Your task to perform on an android device: turn on data saver in the chrome app Image 0: 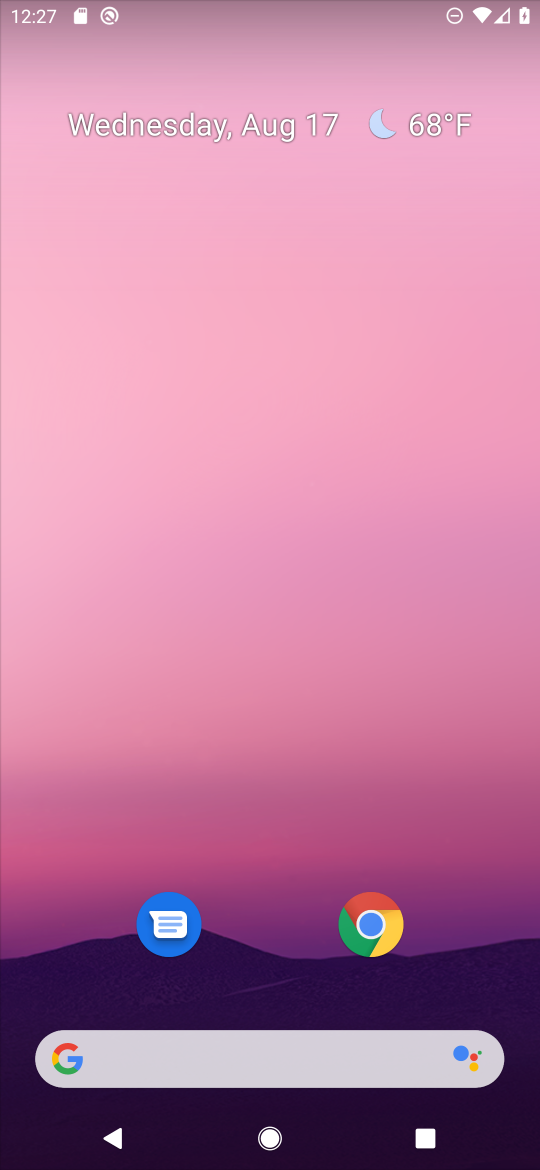
Step 0: click (359, 931)
Your task to perform on an android device: turn on data saver in the chrome app Image 1: 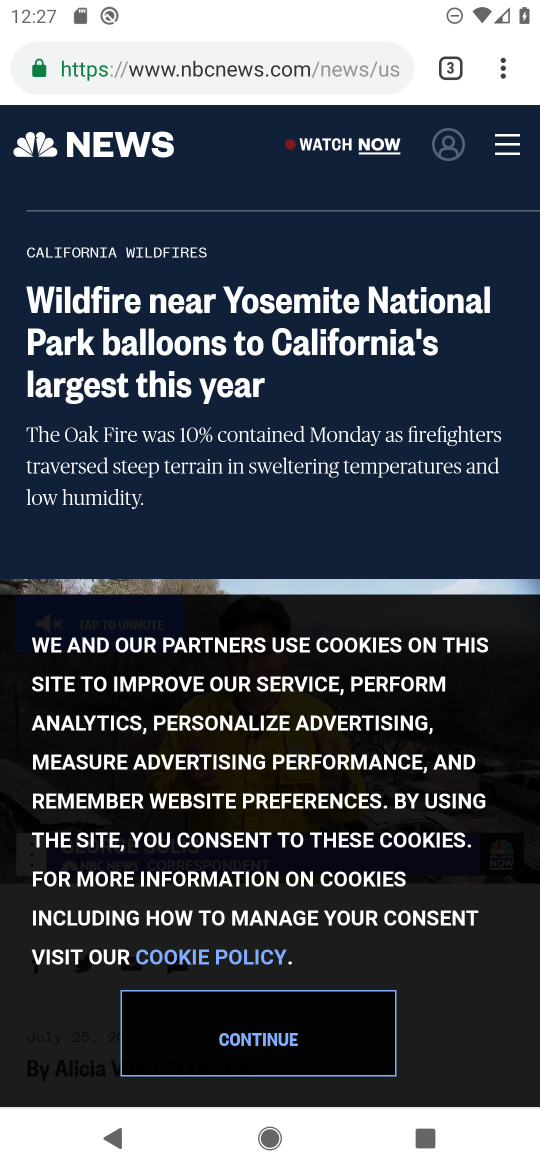
Step 1: click (512, 62)
Your task to perform on an android device: turn on data saver in the chrome app Image 2: 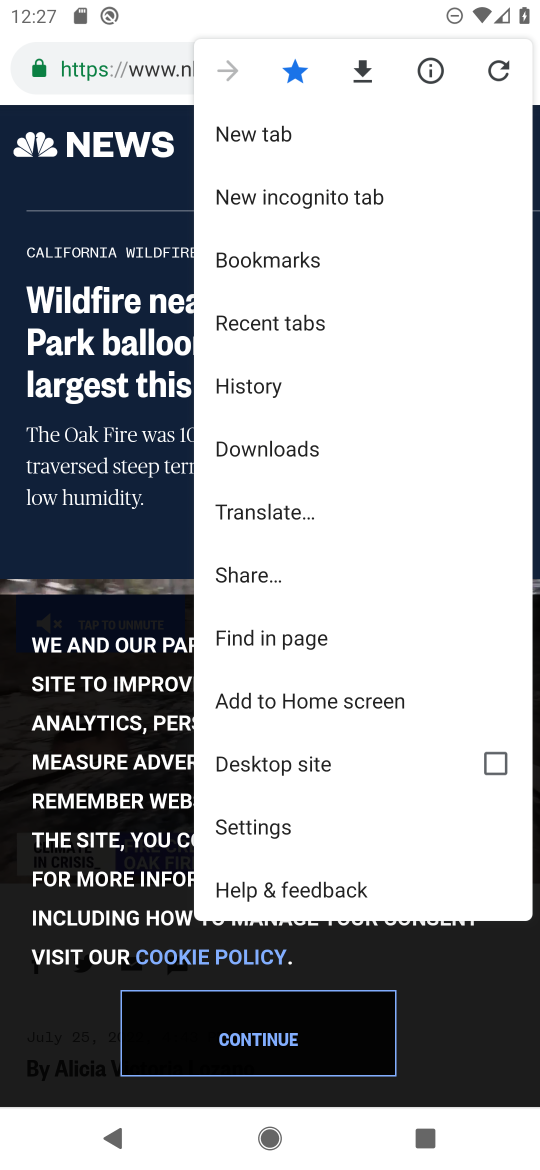
Step 2: click (309, 838)
Your task to perform on an android device: turn on data saver in the chrome app Image 3: 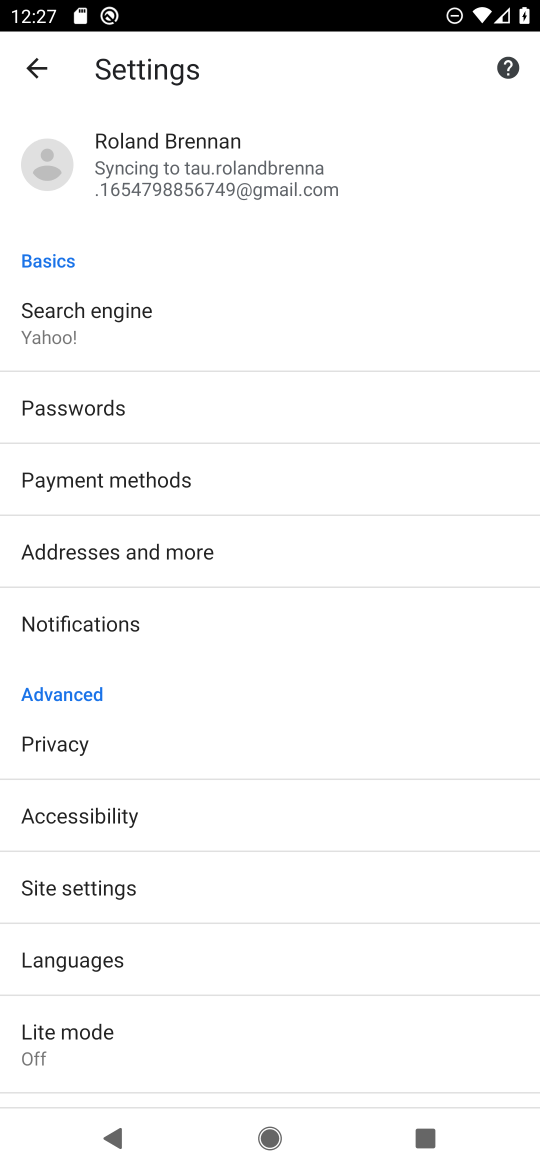
Step 3: click (136, 1040)
Your task to perform on an android device: turn on data saver in the chrome app Image 4: 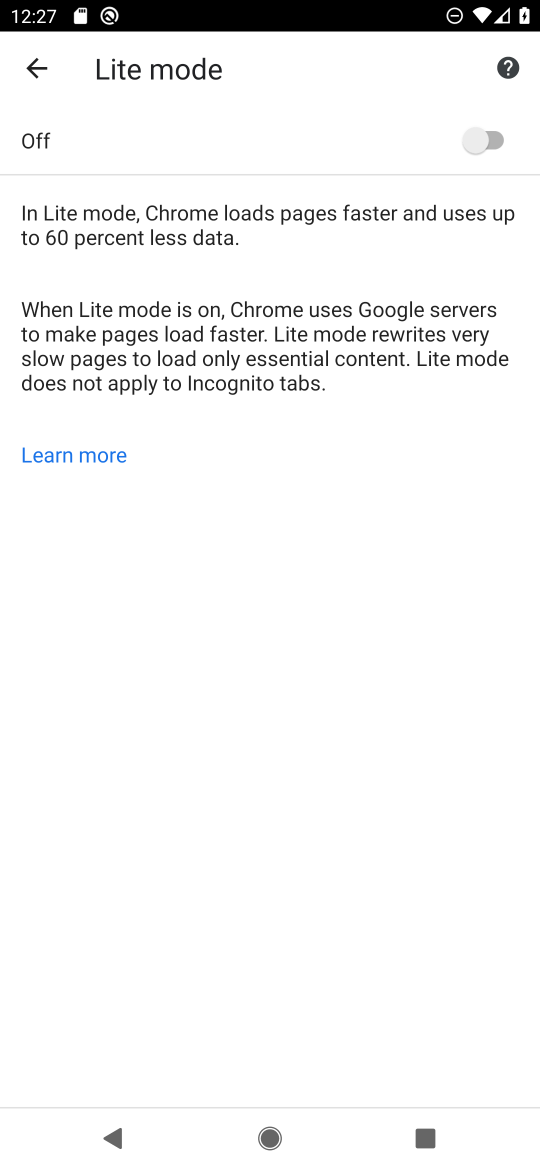
Step 4: click (501, 134)
Your task to perform on an android device: turn on data saver in the chrome app Image 5: 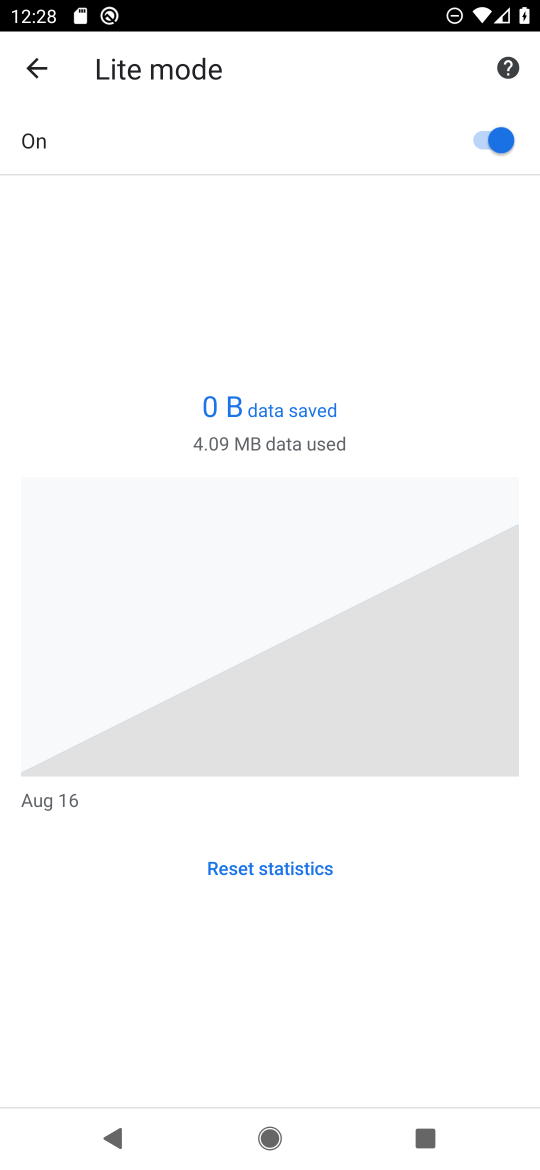
Step 5: task complete